Your task to perform on an android device: Show me productivity apps on the Play Store Image 0: 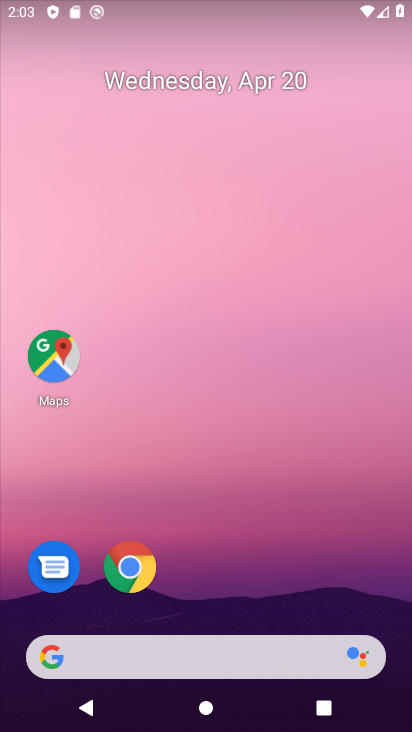
Step 0: drag from (242, 567) to (229, 106)
Your task to perform on an android device: Show me productivity apps on the Play Store Image 1: 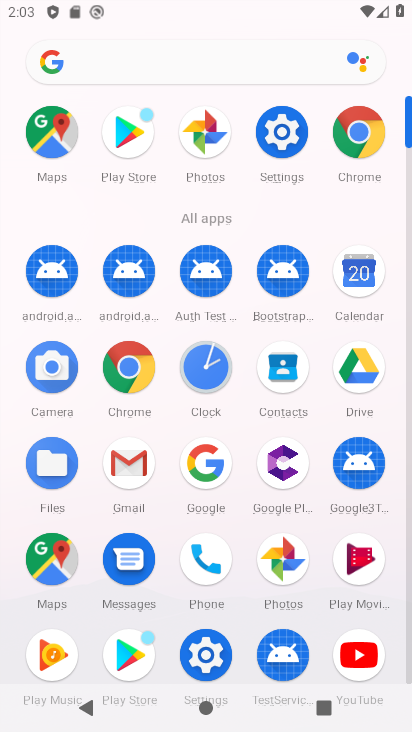
Step 1: click (144, 654)
Your task to perform on an android device: Show me productivity apps on the Play Store Image 2: 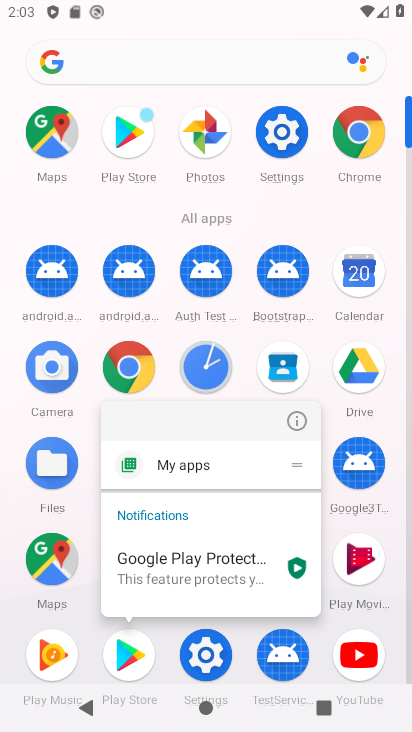
Step 2: click (135, 649)
Your task to perform on an android device: Show me productivity apps on the Play Store Image 3: 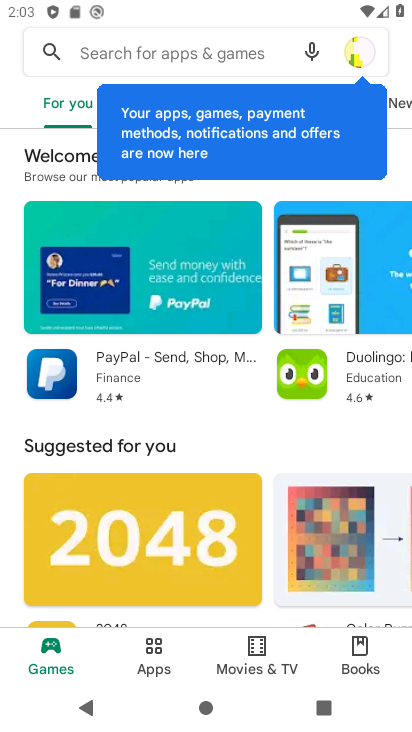
Step 3: drag from (220, 456) to (231, 309)
Your task to perform on an android device: Show me productivity apps on the Play Store Image 4: 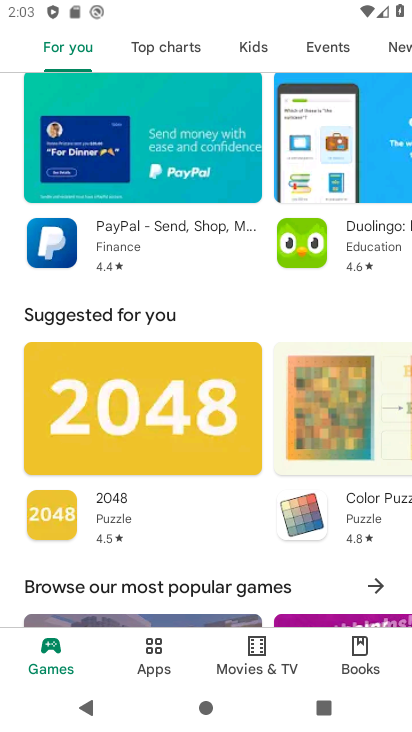
Step 4: drag from (268, 196) to (273, 572)
Your task to perform on an android device: Show me productivity apps on the Play Store Image 5: 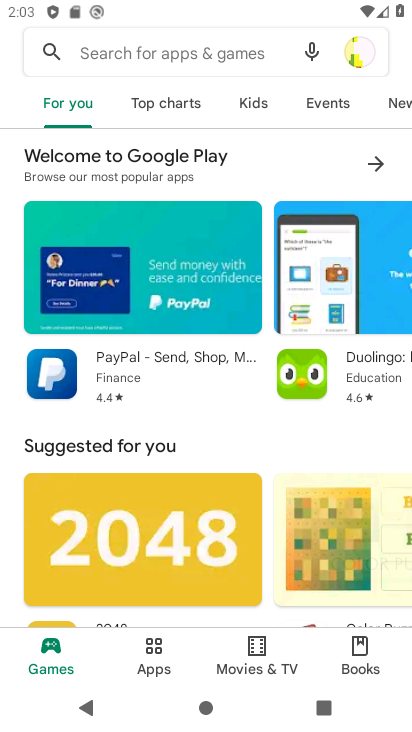
Step 5: click (159, 664)
Your task to perform on an android device: Show me productivity apps on the Play Store Image 6: 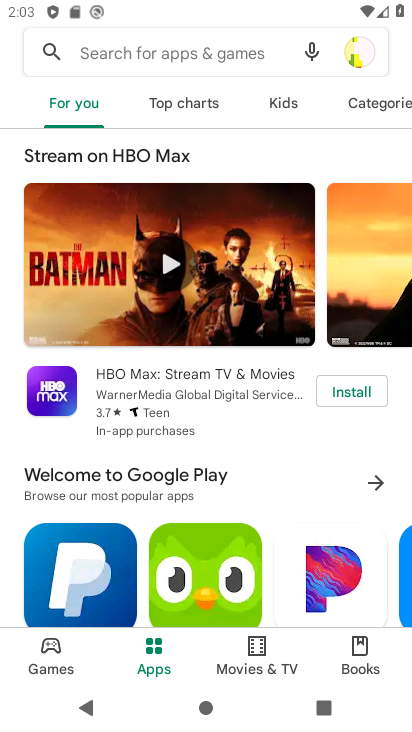
Step 6: drag from (292, 483) to (280, 109)
Your task to perform on an android device: Show me productivity apps on the Play Store Image 7: 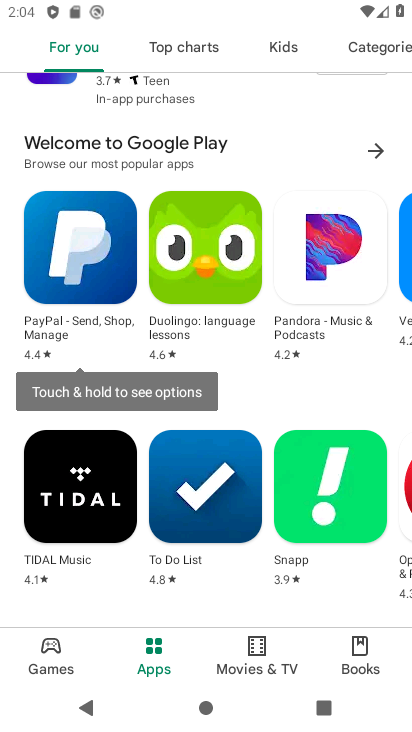
Step 7: drag from (220, 169) to (263, 647)
Your task to perform on an android device: Show me productivity apps on the Play Store Image 8: 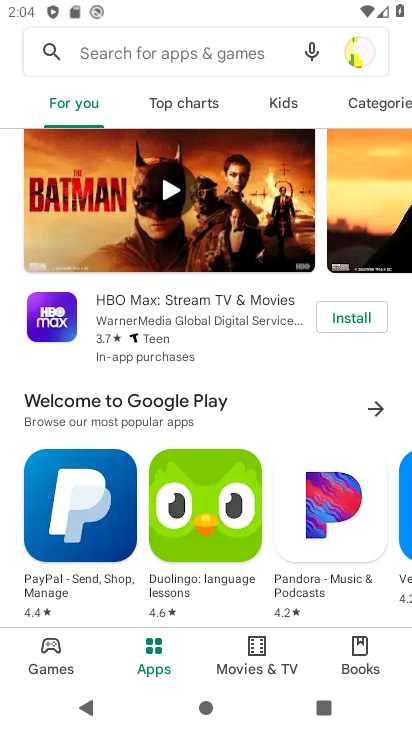
Step 8: click (172, 61)
Your task to perform on an android device: Show me productivity apps on the Play Store Image 9: 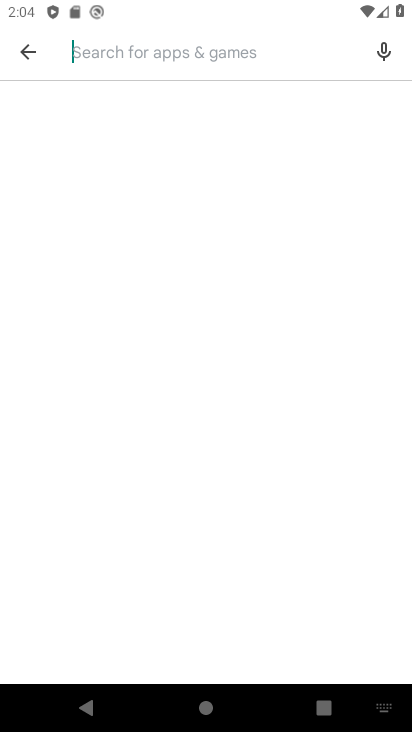
Step 9: type "productivity apps"
Your task to perform on an android device: Show me productivity apps on the Play Store Image 10: 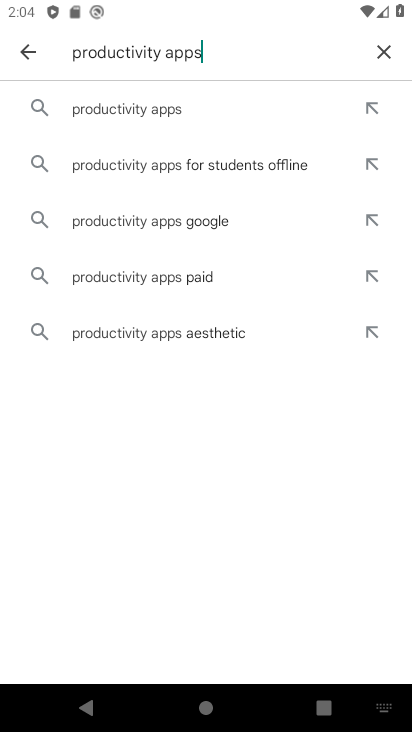
Step 10: click (165, 124)
Your task to perform on an android device: Show me productivity apps on the Play Store Image 11: 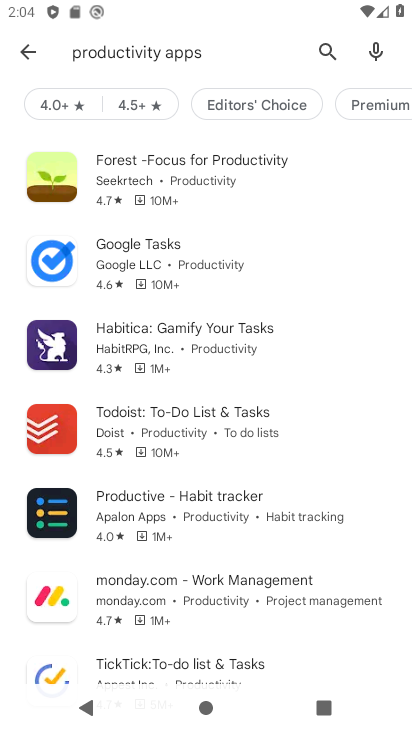
Step 11: task complete